Your task to perform on an android device: set the timer Image 0: 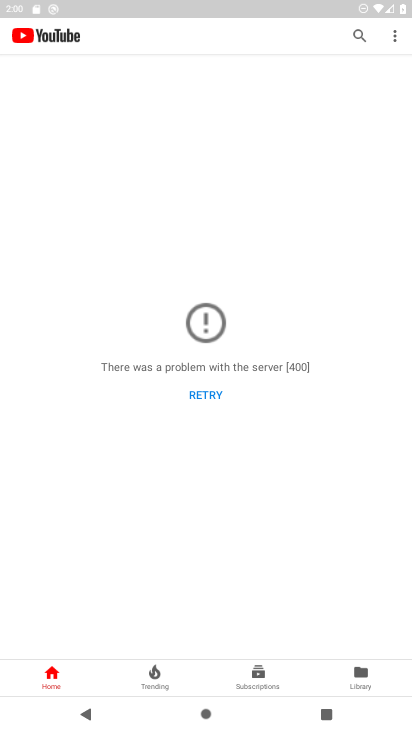
Step 0: press home button
Your task to perform on an android device: set the timer Image 1: 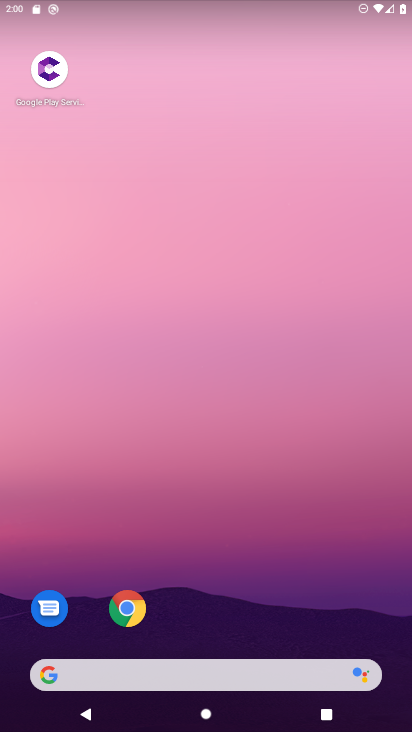
Step 1: drag from (250, 601) to (249, 171)
Your task to perform on an android device: set the timer Image 2: 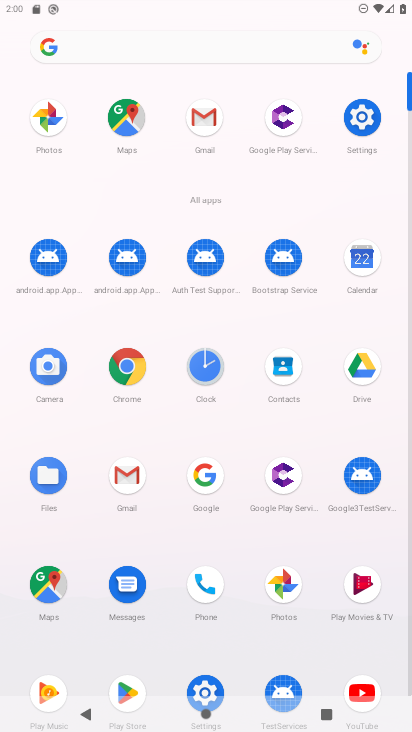
Step 2: click (209, 369)
Your task to perform on an android device: set the timer Image 3: 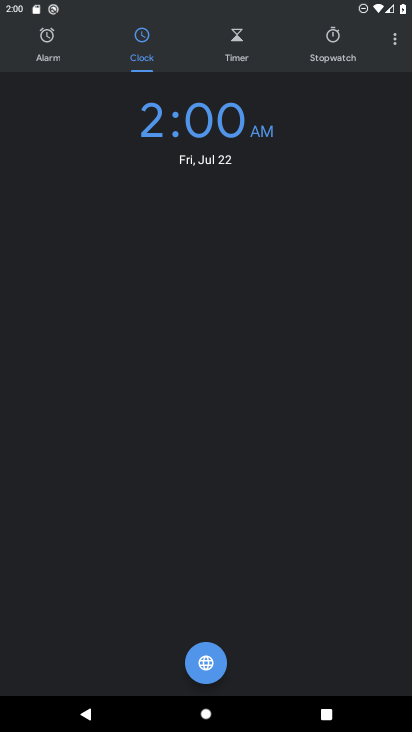
Step 3: click (251, 45)
Your task to perform on an android device: set the timer Image 4: 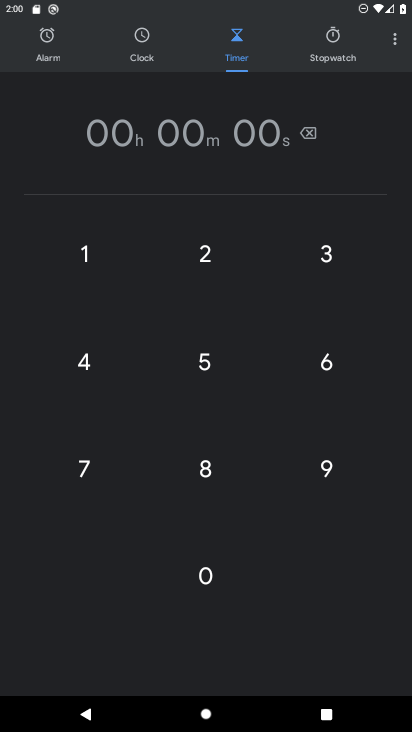
Step 4: click (197, 256)
Your task to perform on an android device: set the timer Image 5: 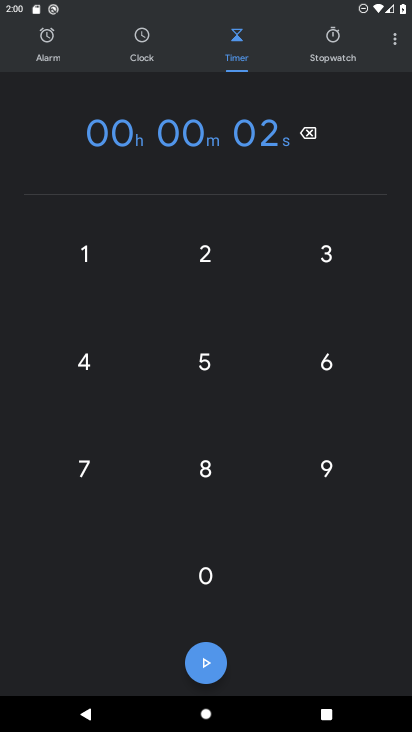
Step 5: click (202, 336)
Your task to perform on an android device: set the timer Image 6: 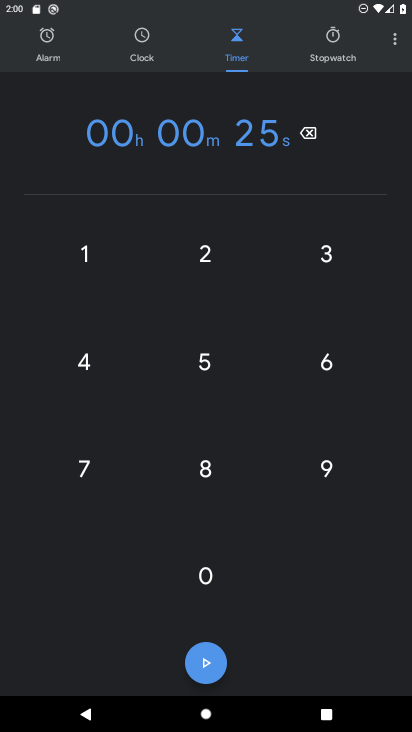
Step 6: click (75, 294)
Your task to perform on an android device: set the timer Image 7: 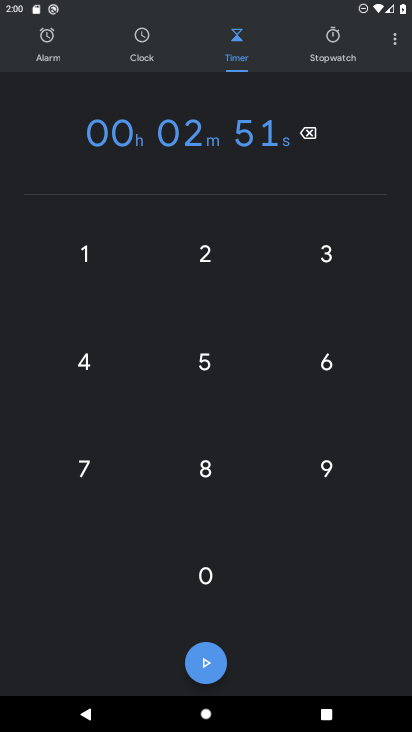
Step 7: click (81, 340)
Your task to perform on an android device: set the timer Image 8: 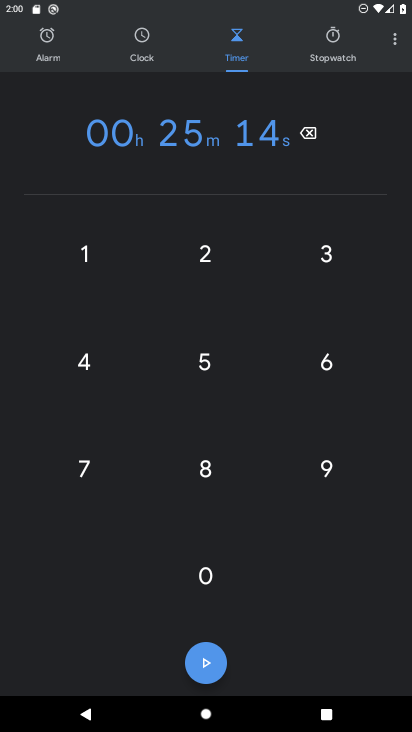
Step 8: click (284, 278)
Your task to perform on an android device: set the timer Image 9: 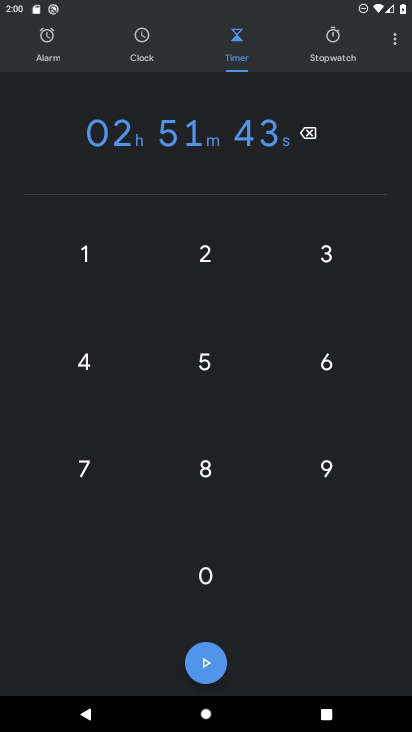
Step 9: click (307, 336)
Your task to perform on an android device: set the timer Image 10: 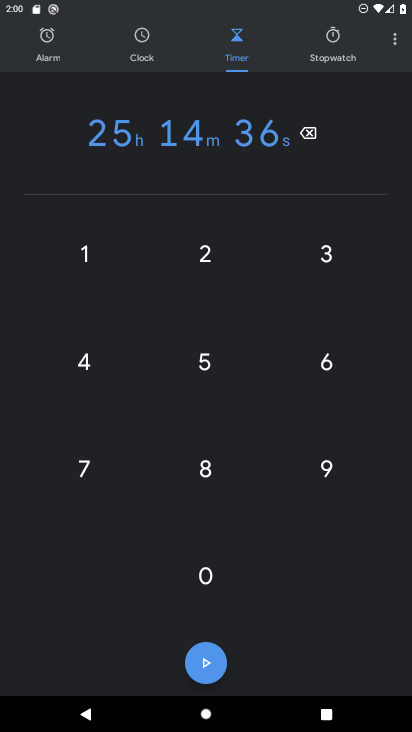
Step 10: click (194, 658)
Your task to perform on an android device: set the timer Image 11: 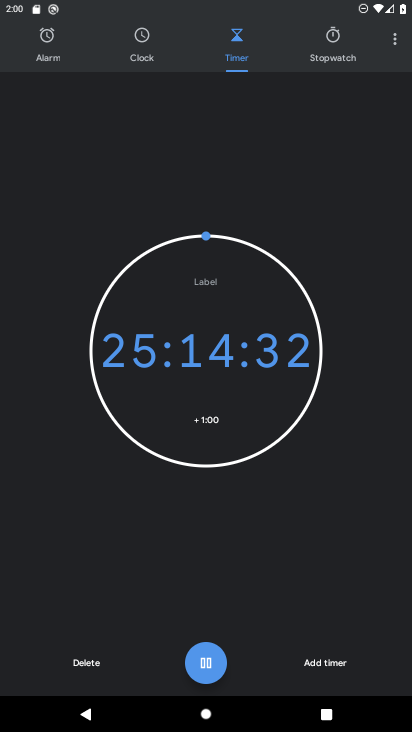
Step 11: task complete